Your task to perform on an android device: open device folders in google photos Image 0: 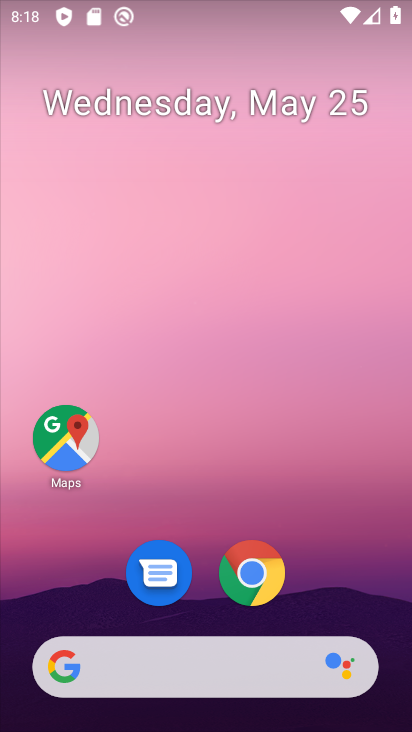
Step 0: drag from (396, 626) to (303, 171)
Your task to perform on an android device: open device folders in google photos Image 1: 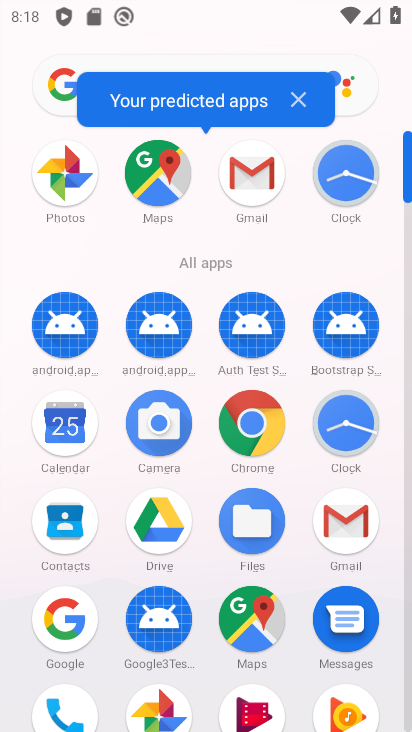
Step 1: click (77, 180)
Your task to perform on an android device: open device folders in google photos Image 2: 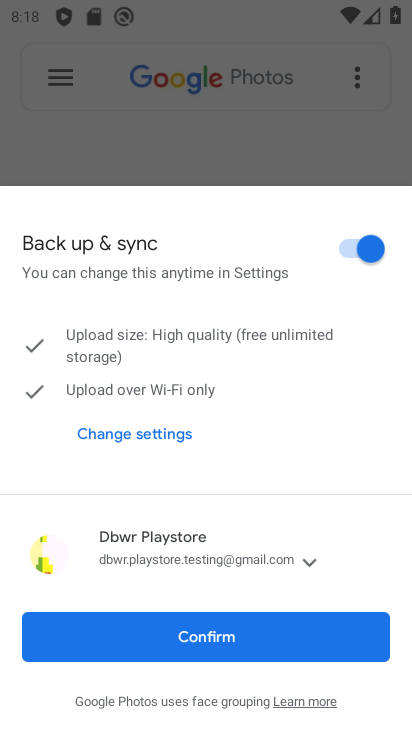
Step 2: click (270, 652)
Your task to perform on an android device: open device folders in google photos Image 3: 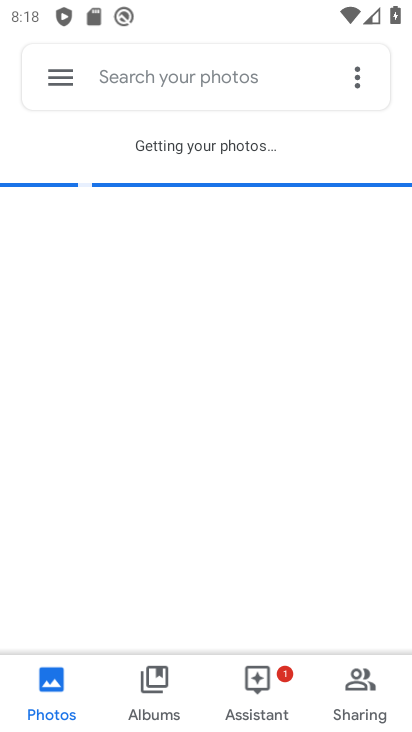
Step 3: click (53, 74)
Your task to perform on an android device: open device folders in google photos Image 4: 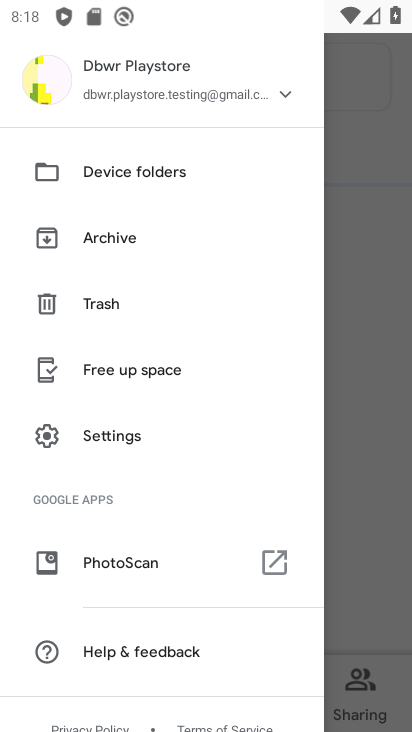
Step 4: click (102, 180)
Your task to perform on an android device: open device folders in google photos Image 5: 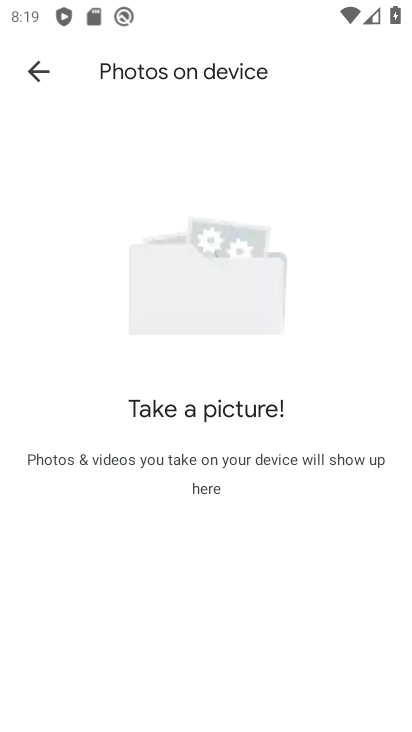
Step 5: task complete